Your task to perform on an android device: turn off smart reply in the gmail app Image 0: 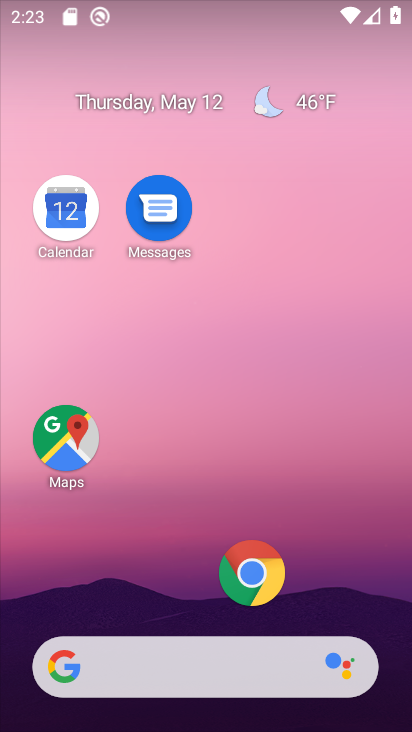
Step 0: drag from (185, 578) to (257, 52)
Your task to perform on an android device: turn off smart reply in the gmail app Image 1: 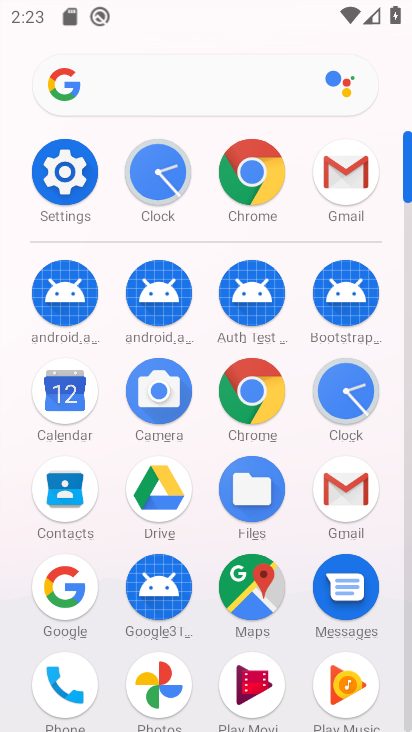
Step 1: click (354, 489)
Your task to perform on an android device: turn off smart reply in the gmail app Image 2: 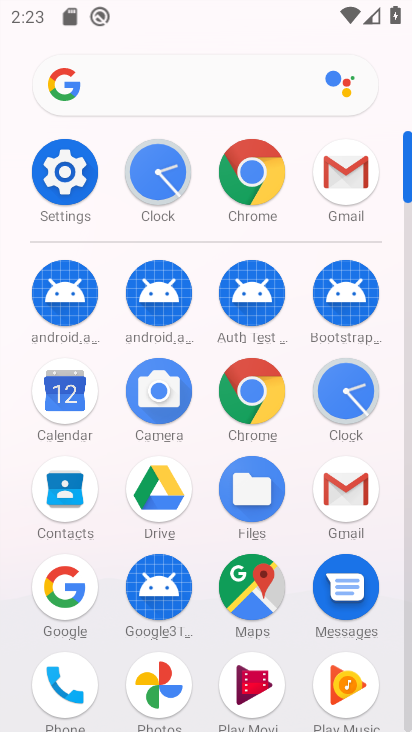
Step 2: click (355, 488)
Your task to perform on an android device: turn off smart reply in the gmail app Image 3: 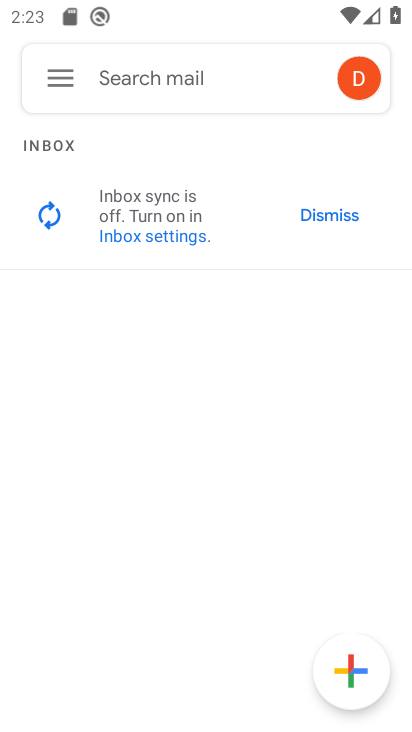
Step 3: click (56, 83)
Your task to perform on an android device: turn off smart reply in the gmail app Image 4: 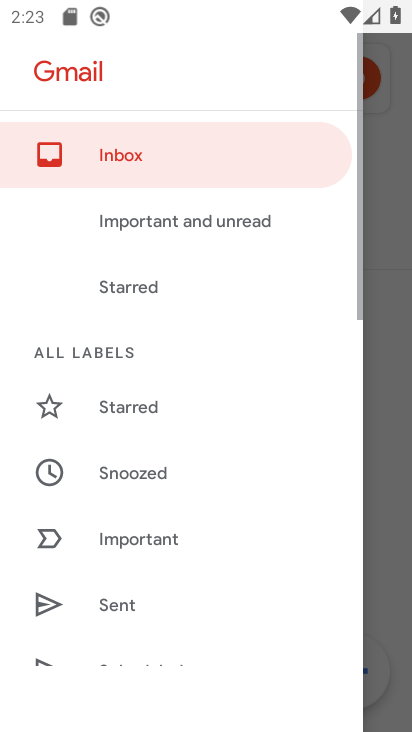
Step 4: drag from (173, 596) to (272, 6)
Your task to perform on an android device: turn off smart reply in the gmail app Image 5: 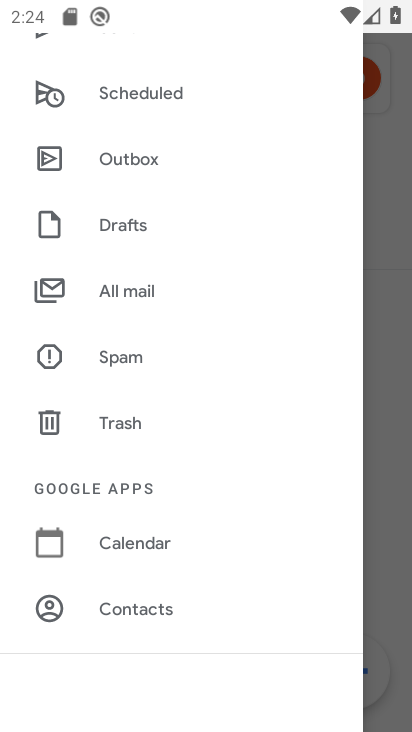
Step 5: drag from (163, 570) to (229, 365)
Your task to perform on an android device: turn off smart reply in the gmail app Image 6: 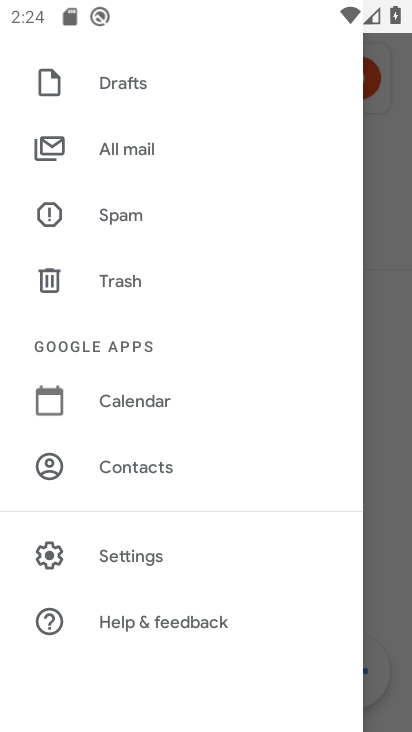
Step 6: drag from (190, 496) to (265, 193)
Your task to perform on an android device: turn off smart reply in the gmail app Image 7: 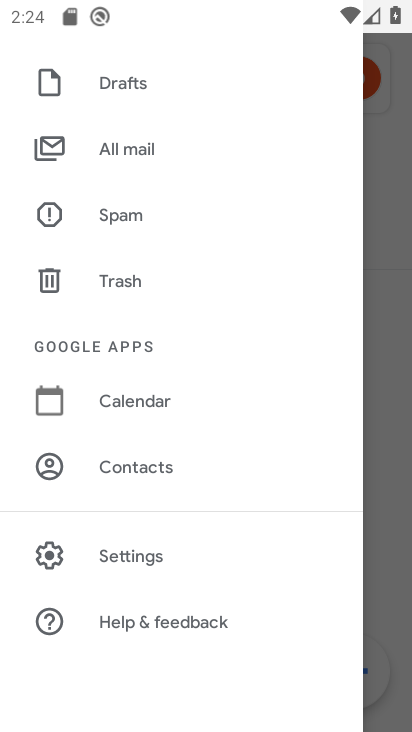
Step 7: click (150, 561)
Your task to perform on an android device: turn off smart reply in the gmail app Image 8: 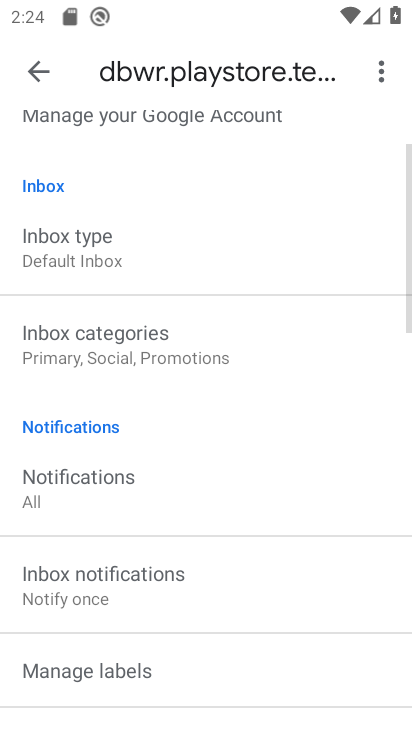
Step 8: drag from (169, 624) to (313, 49)
Your task to perform on an android device: turn off smart reply in the gmail app Image 9: 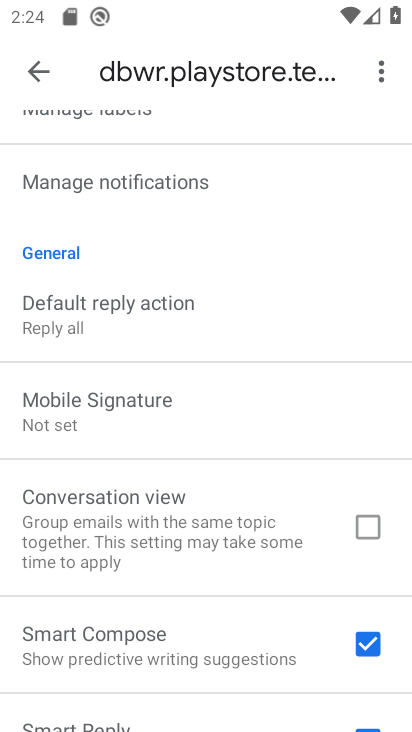
Step 9: drag from (169, 676) to (253, 64)
Your task to perform on an android device: turn off smart reply in the gmail app Image 10: 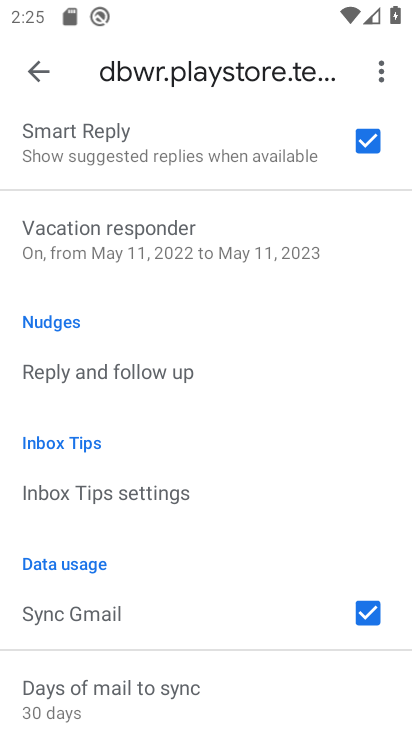
Step 10: click (284, 152)
Your task to perform on an android device: turn off smart reply in the gmail app Image 11: 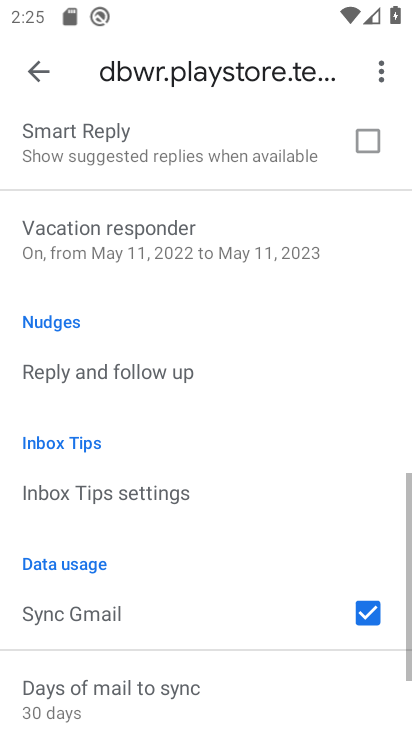
Step 11: task complete